Your task to perform on an android device: What's the weather going to be tomorrow? Image 0: 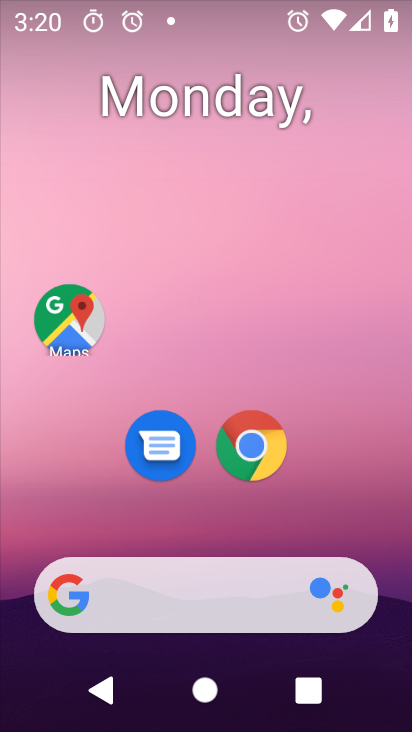
Step 0: click (366, 219)
Your task to perform on an android device: What's the weather going to be tomorrow? Image 1: 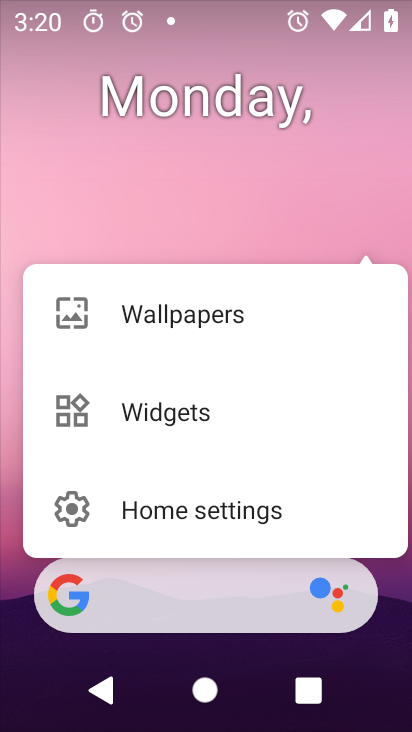
Step 1: click (33, 175)
Your task to perform on an android device: What's the weather going to be tomorrow? Image 2: 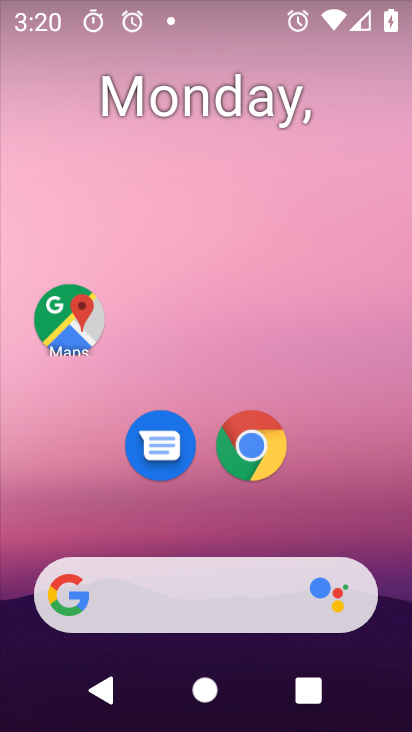
Step 2: drag from (11, 191) to (402, 182)
Your task to perform on an android device: What's the weather going to be tomorrow? Image 3: 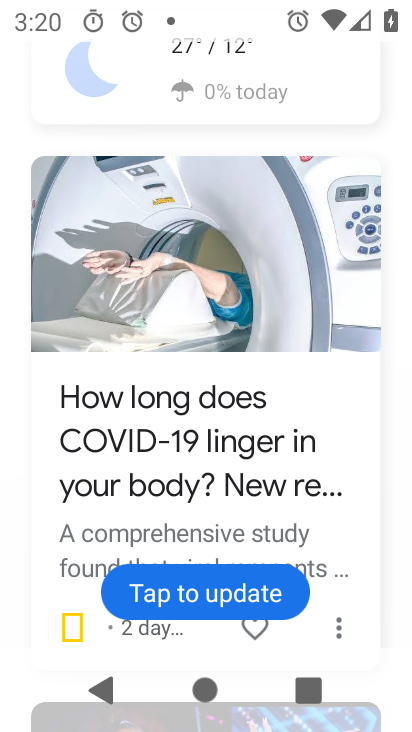
Step 3: drag from (82, 89) to (116, 392)
Your task to perform on an android device: What's the weather going to be tomorrow? Image 4: 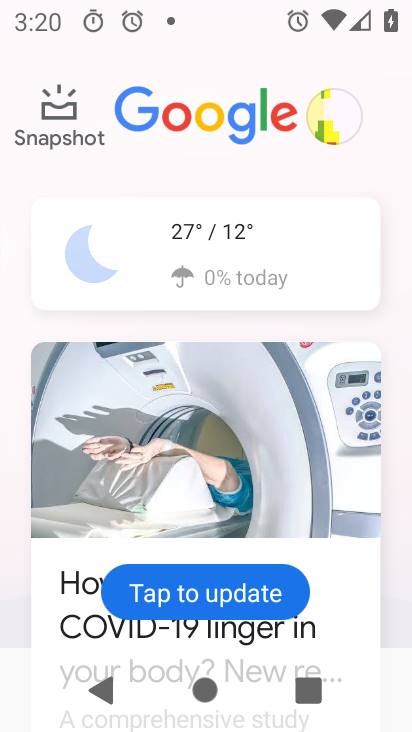
Step 4: click (83, 279)
Your task to perform on an android device: What's the weather going to be tomorrow? Image 5: 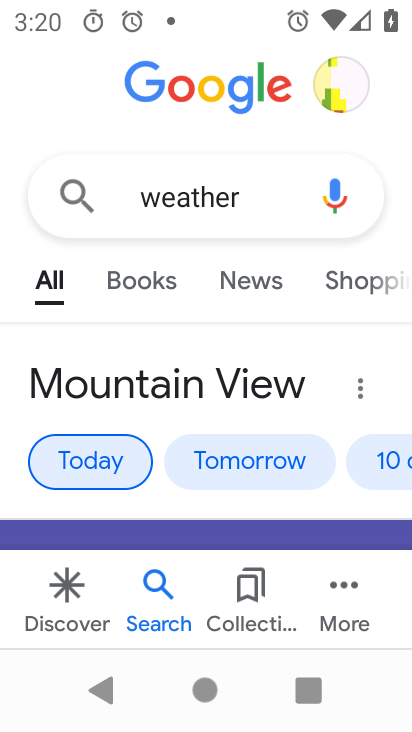
Step 5: click (209, 452)
Your task to perform on an android device: What's the weather going to be tomorrow? Image 6: 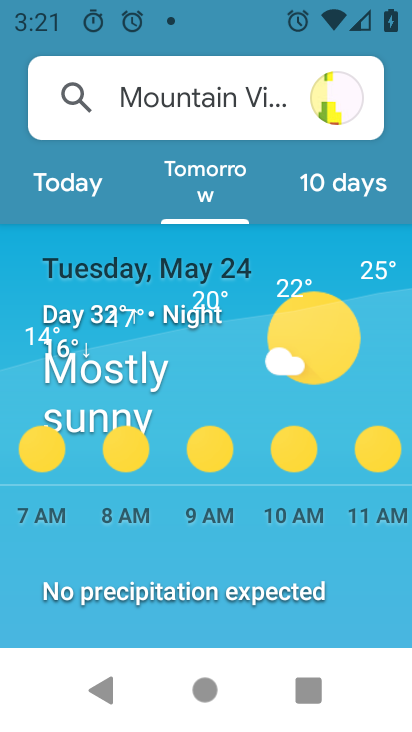
Step 6: task complete